Your task to perform on an android device: Open Amazon Image 0: 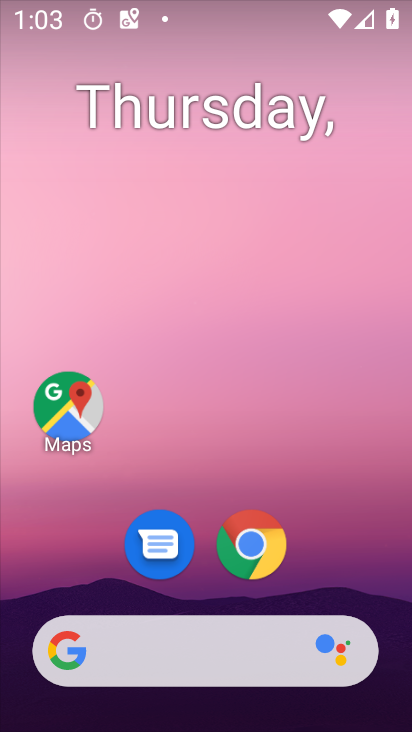
Step 0: click (245, 543)
Your task to perform on an android device: Open Amazon Image 1: 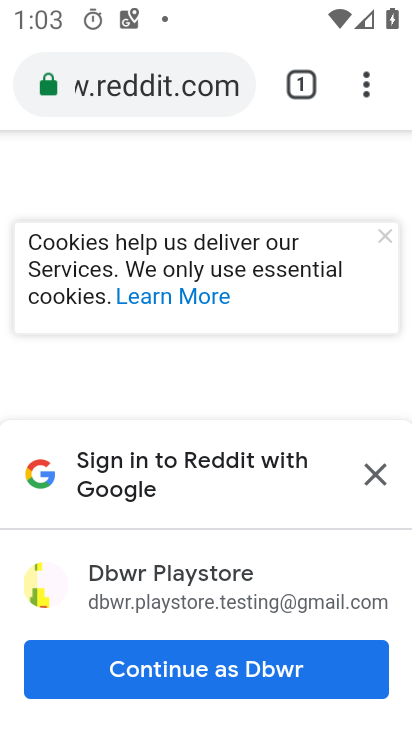
Step 1: click (292, 95)
Your task to perform on an android device: Open Amazon Image 2: 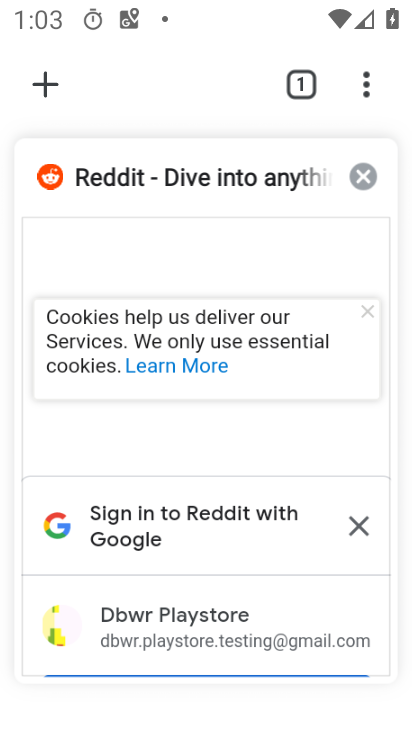
Step 2: click (358, 183)
Your task to perform on an android device: Open Amazon Image 3: 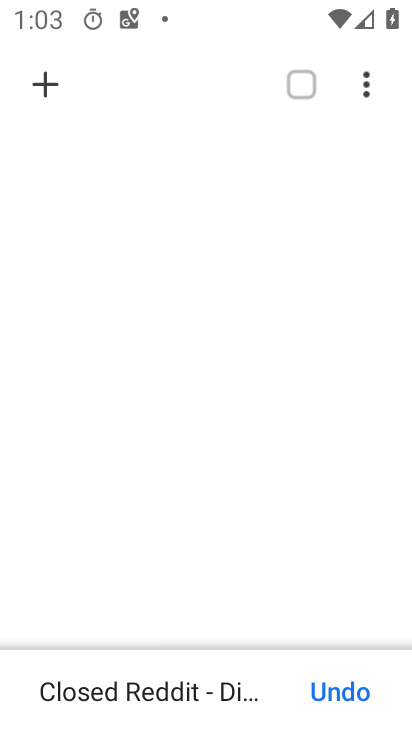
Step 3: click (43, 85)
Your task to perform on an android device: Open Amazon Image 4: 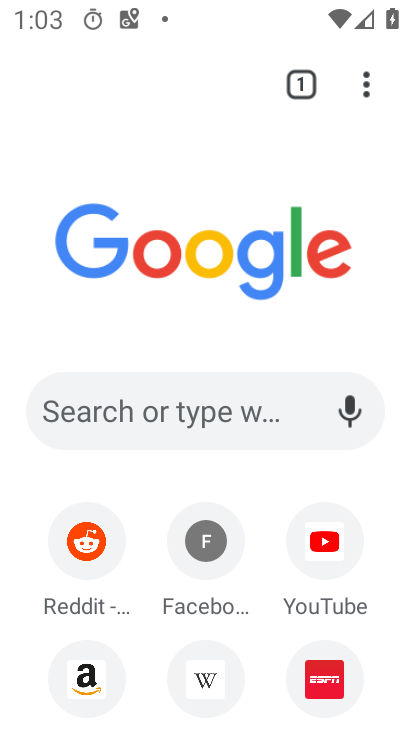
Step 4: click (90, 671)
Your task to perform on an android device: Open Amazon Image 5: 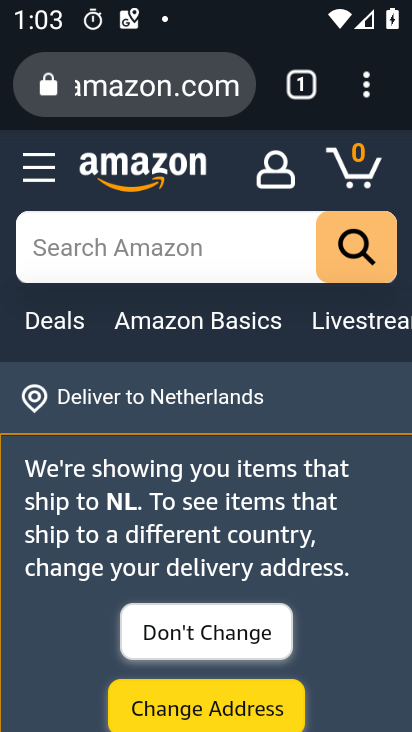
Step 5: task complete